Your task to perform on an android device: empty trash in google photos Image 0: 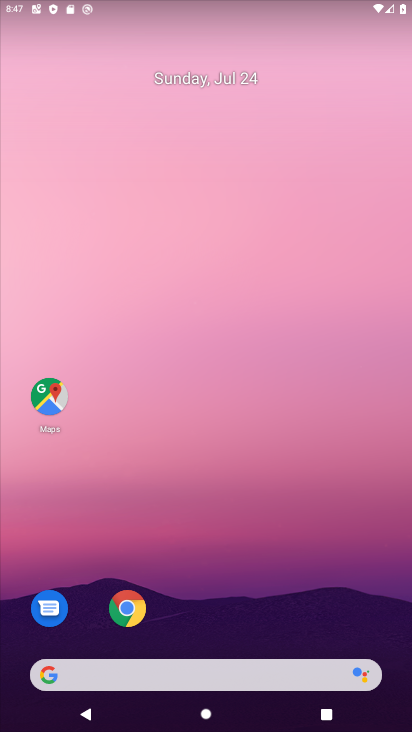
Step 0: drag from (213, 606) to (349, 1)
Your task to perform on an android device: empty trash in google photos Image 1: 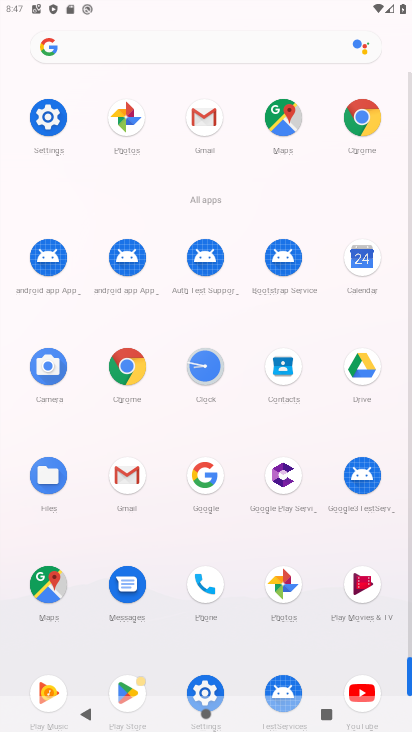
Step 1: click (283, 593)
Your task to perform on an android device: empty trash in google photos Image 2: 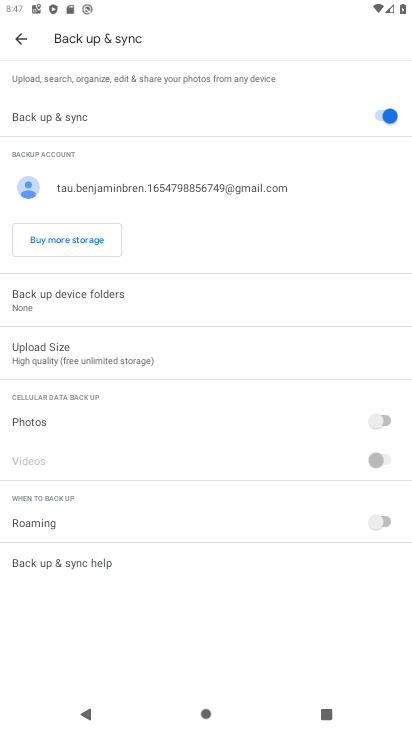
Step 2: click (23, 37)
Your task to perform on an android device: empty trash in google photos Image 3: 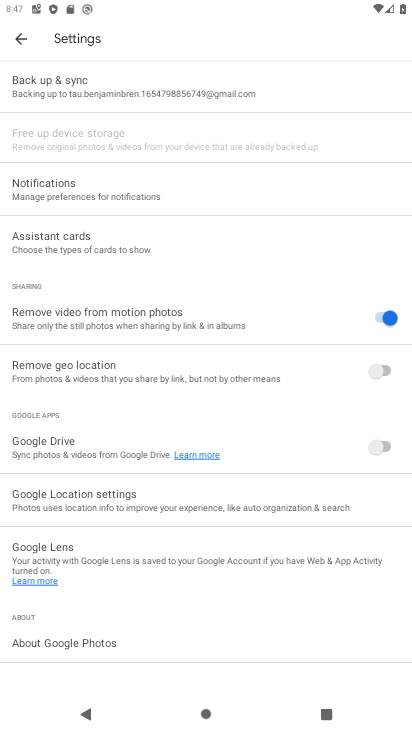
Step 3: click (23, 37)
Your task to perform on an android device: empty trash in google photos Image 4: 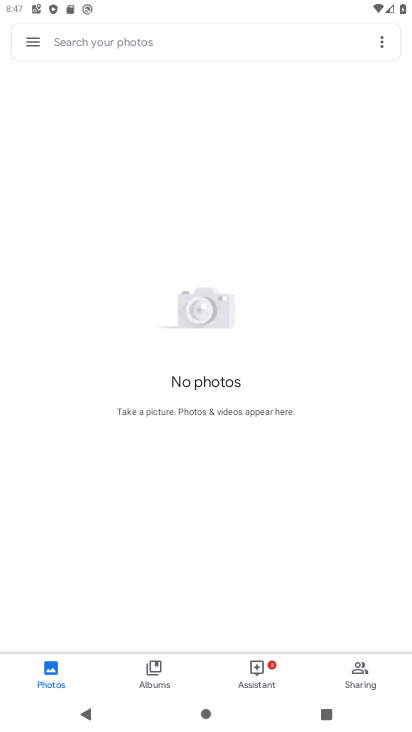
Step 4: click (30, 43)
Your task to perform on an android device: empty trash in google photos Image 5: 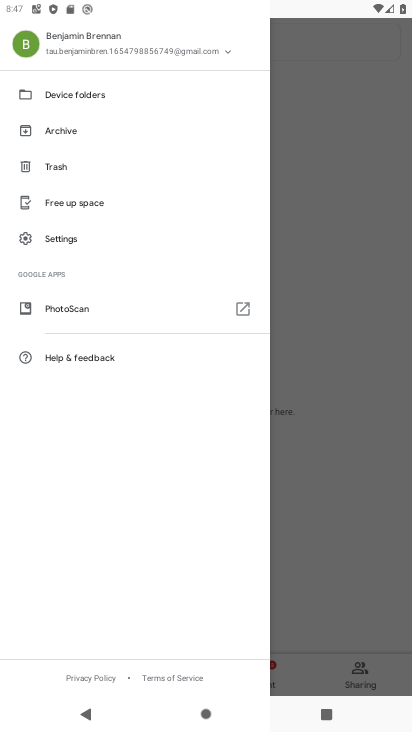
Step 5: click (59, 164)
Your task to perform on an android device: empty trash in google photos Image 6: 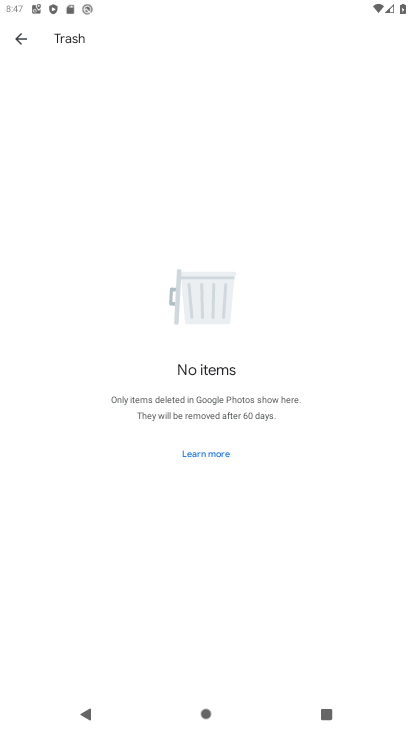
Step 6: task complete